Your task to perform on an android device: Open privacy settings Image 0: 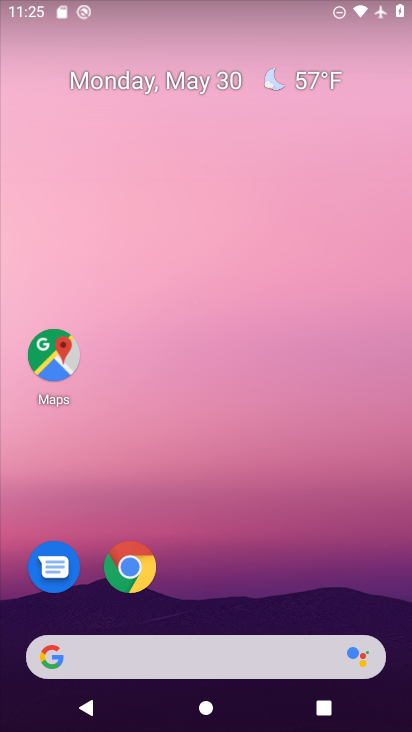
Step 0: drag from (194, 548) to (194, 193)
Your task to perform on an android device: Open privacy settings Image 1: 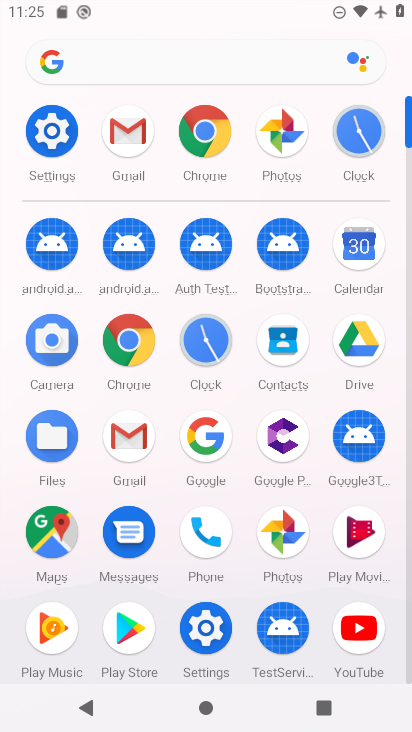
Step 1: click (72, 122)
Your task to perform on an android device: Open privacy settings Image 2: 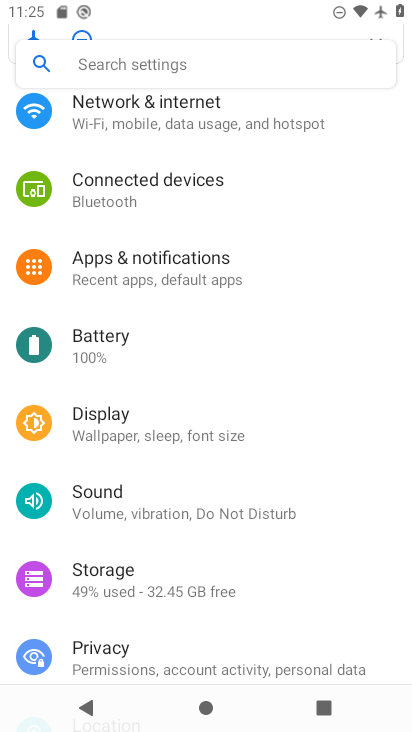
Step 2: drag from (144, 561) to (147, 357)
Your task to perform on an android device: Open privacy settings Image 3: 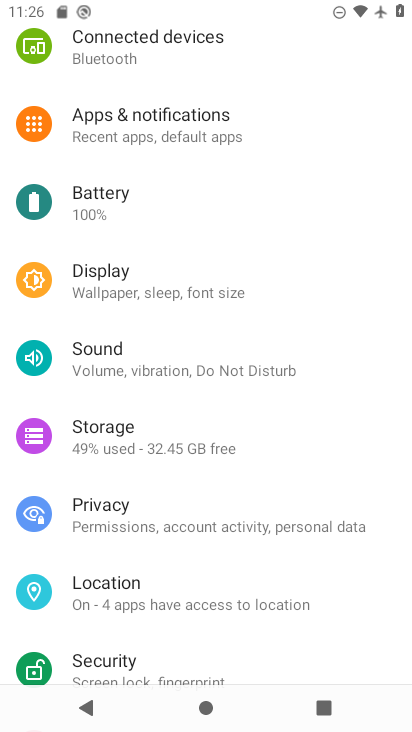
Step 3: click (132, 489)
Your task to perform on an android device: Open privacy settings Image 4: 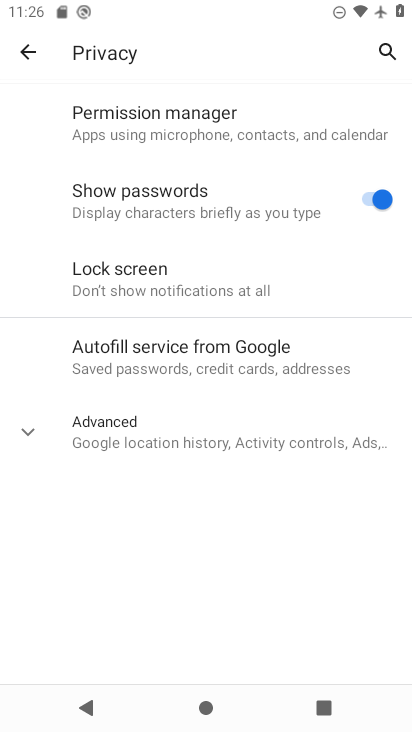
Step 4: task complete